Your task to perform on an android device: Search for Italian restaurants on Maps Image 0: 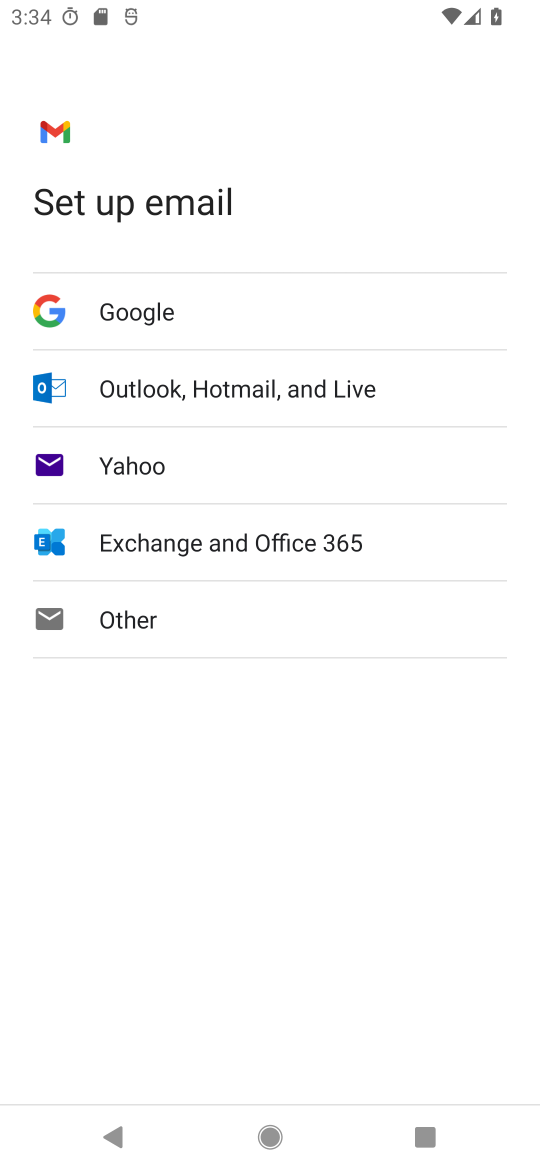
Step 0: press home button
Your task to perform on an android device: Search for Italian restaurants on Maps Image 1: 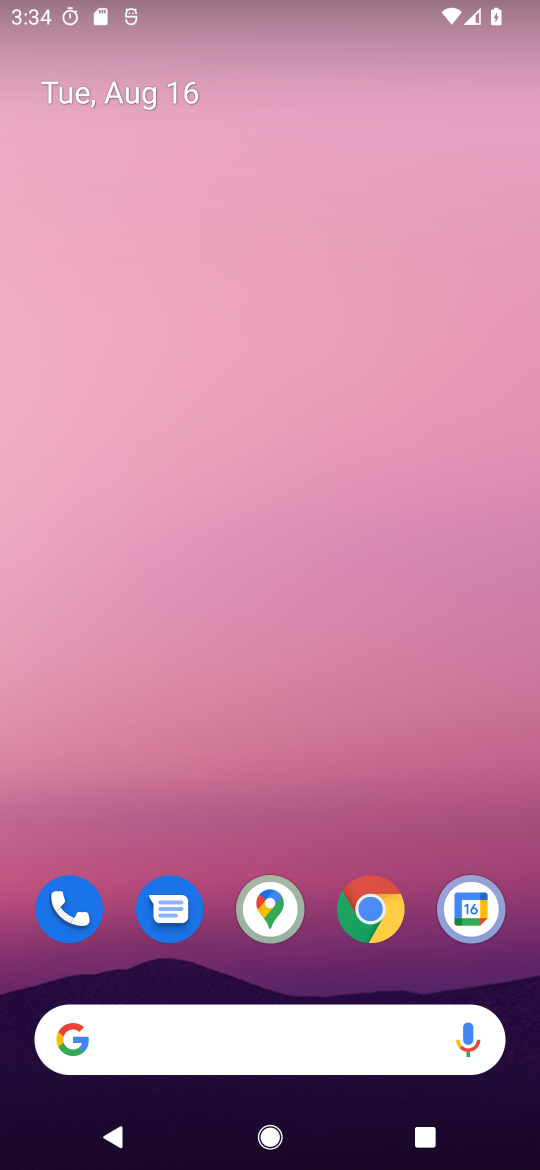
Step 1: click (273, 914)
Your task to perform on an android device: Search for Italian restaurants on Maps Image 2: 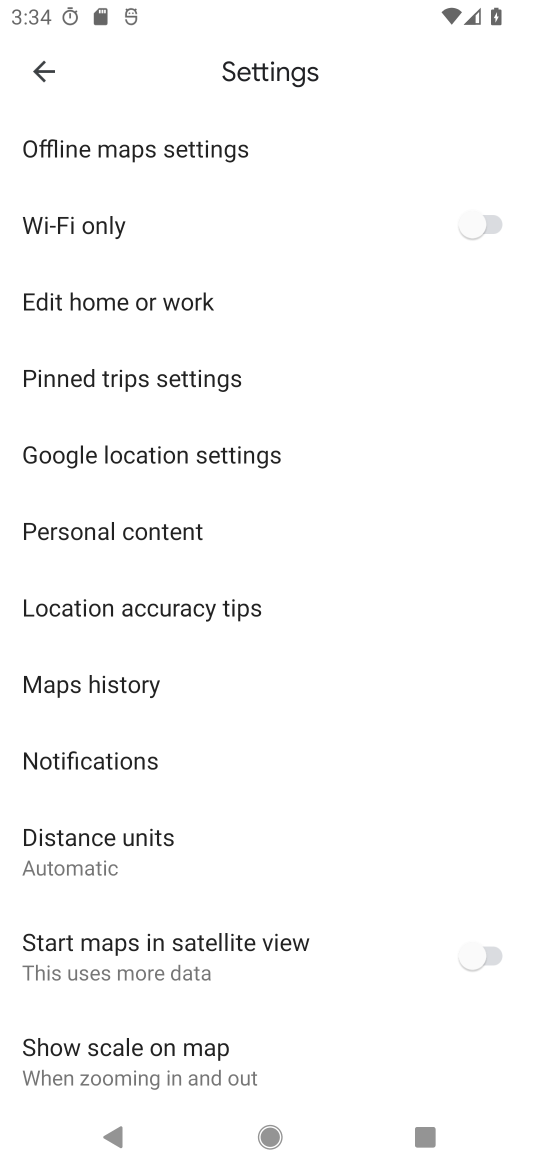
Step 2: click (37, 62)
Your task to perform on an android device: Search for Italian restaurants on Maps Image 3: 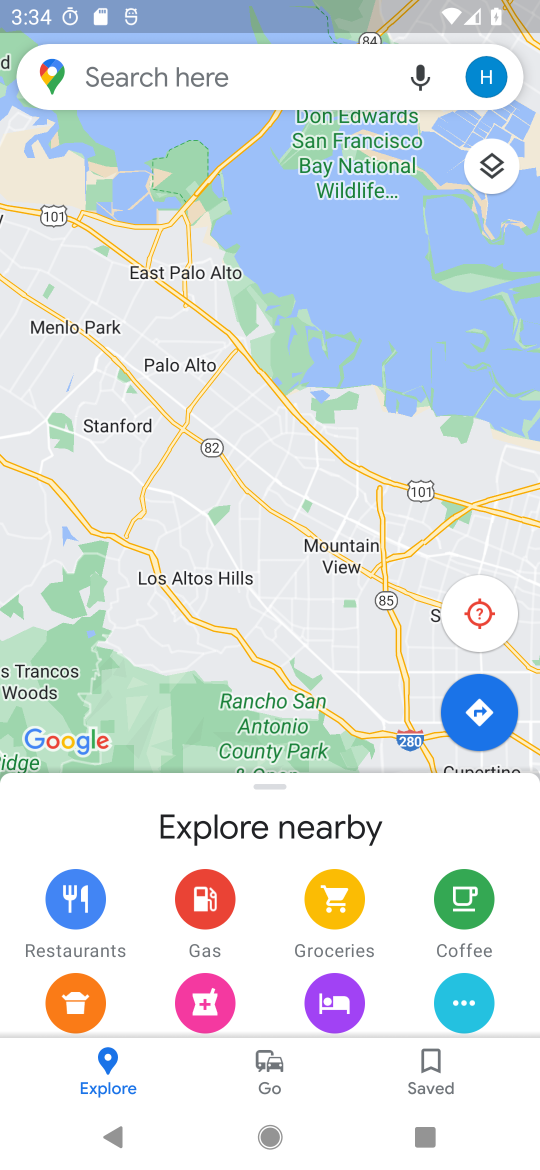
Step 3: click (173, 68)
Your task to perform on an android device: Search for Italian restaurants on Maps Image 4: 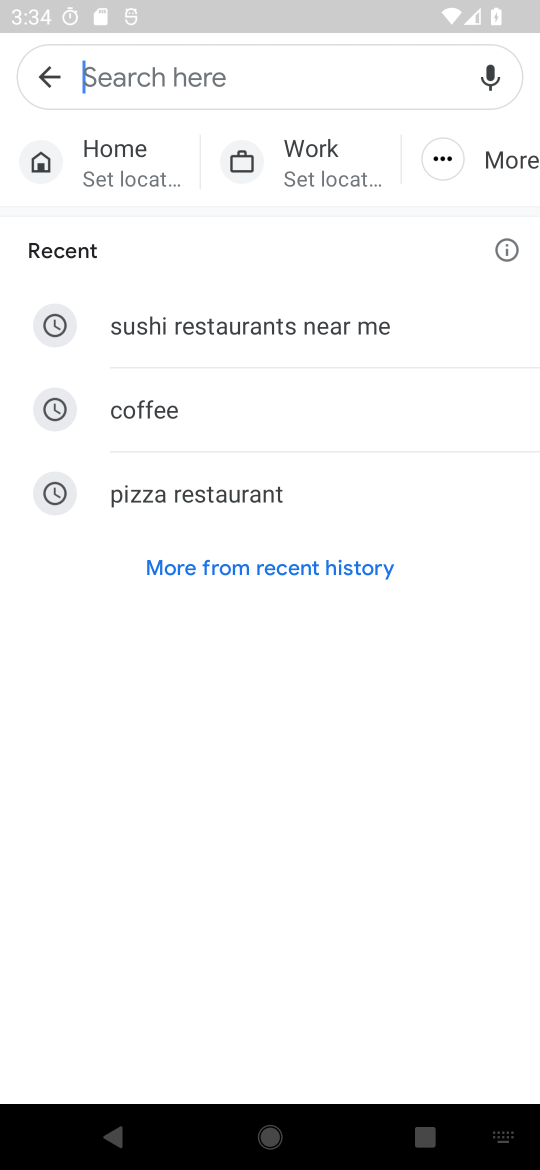
Step 4: click (269, 560)
Your task to perform on an android device: Search for Italian restaurants on Maps Image 5: 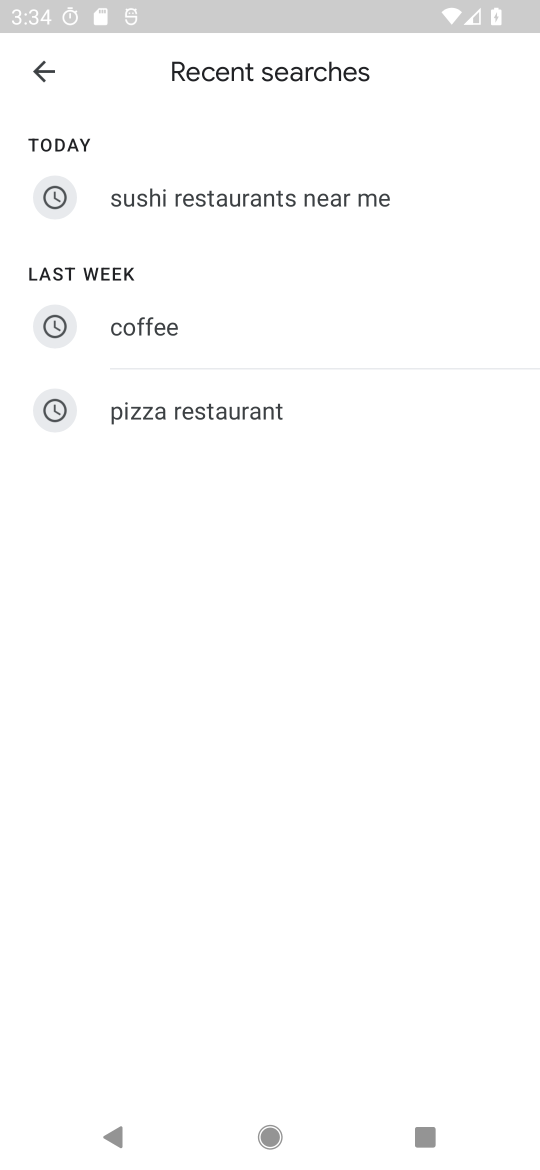
Step 5: click (49, 75)
Your task to perform on an android device: Search for Italian restaurants on Maps Image 6: 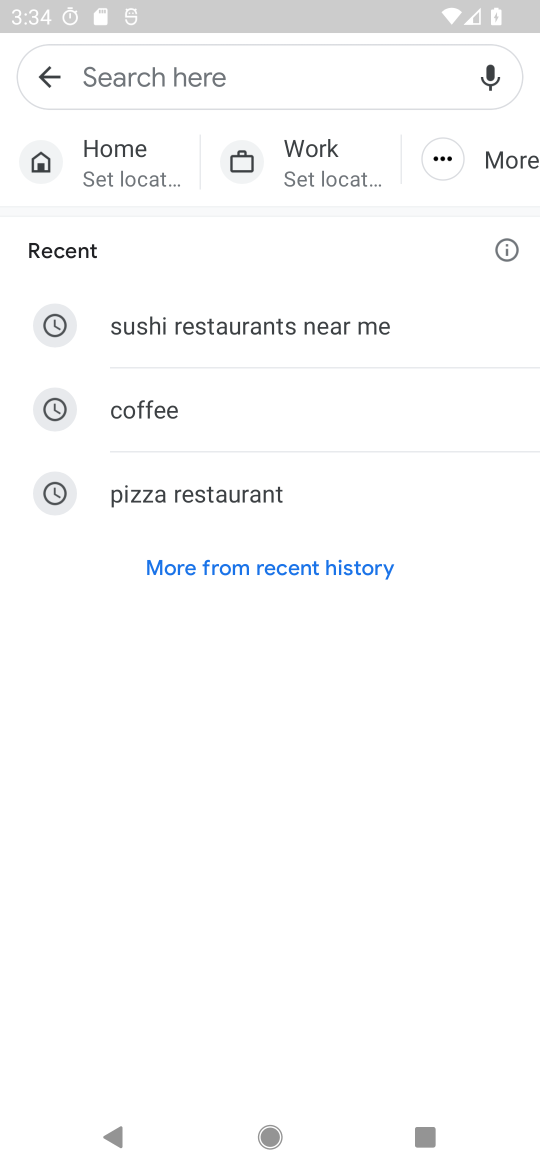
Step 6: click (240, 88)
Your task to perform on an android device: Search for Italian restaurants on Maps Image 7: 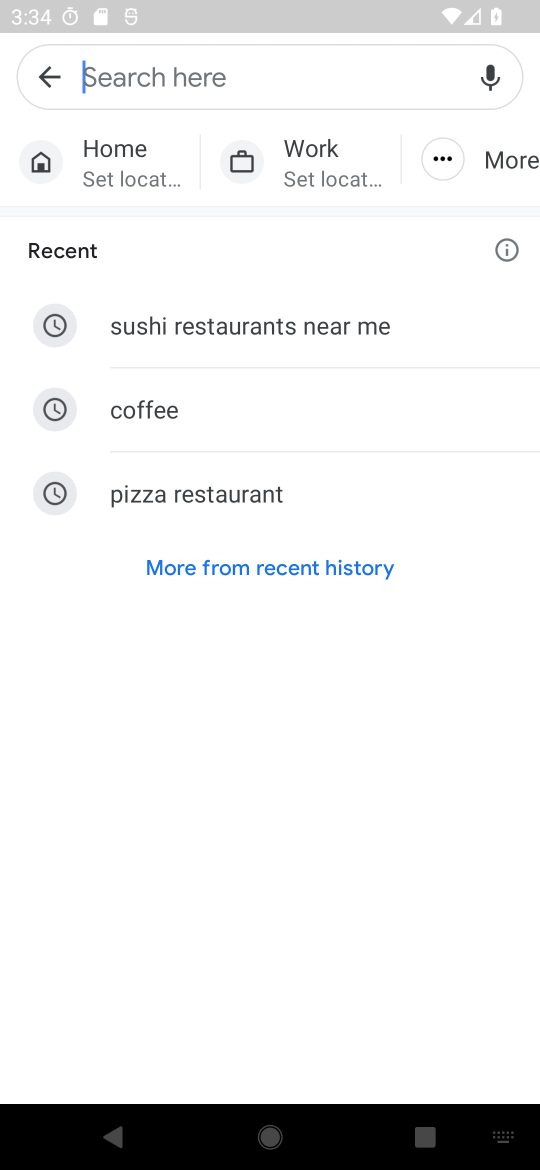
Step 7: type "italian restaurants"
Your task to perform on an android device: Search for Italian restaurants on Maps Image 8: 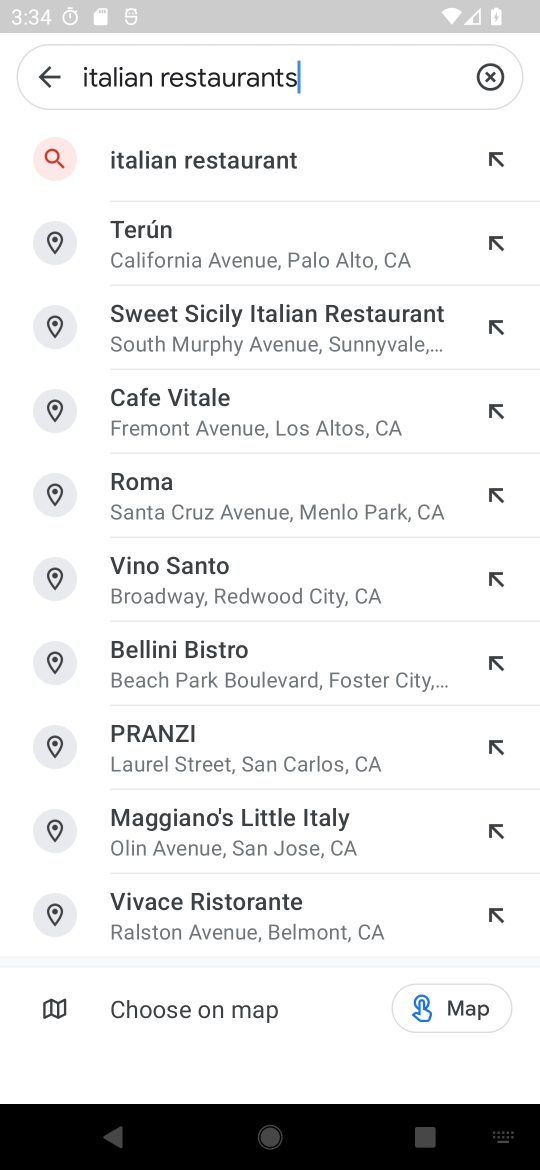
Step 8: click (271, 159)
Your task to perform on an android device: Search for Italian restaurants on Maps Image 9: 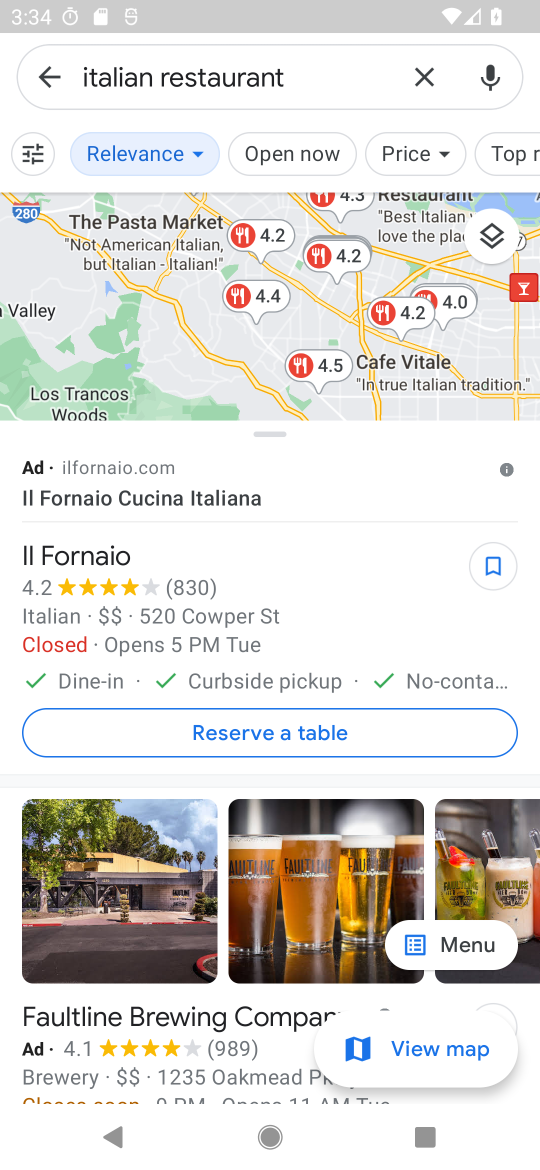
Step 9: task complete